Your task to perform on an android device: uninstall "Google Photos" Image 0: 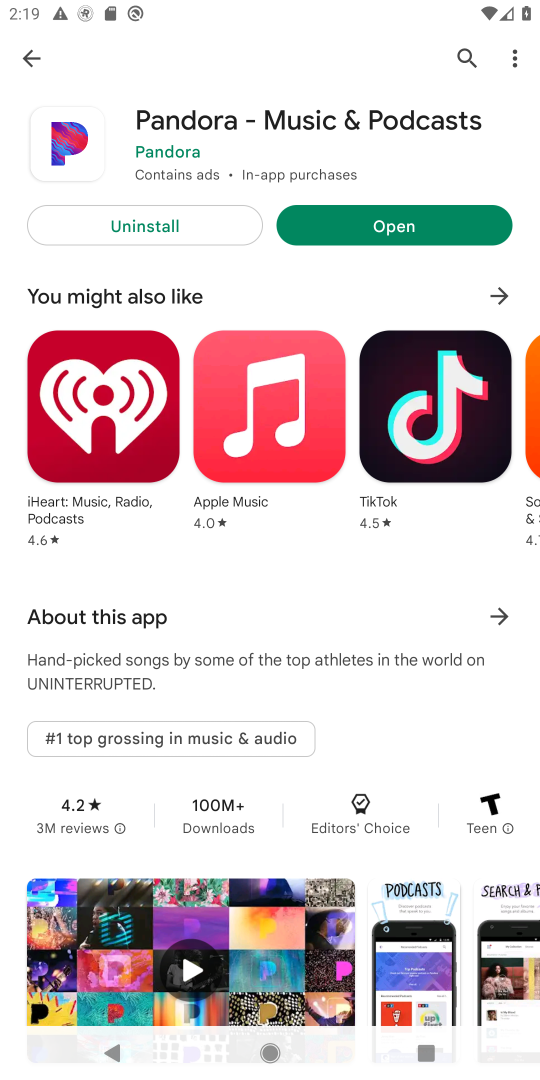
Step 0: click (467, 55)
Your task to perform on an android device: uninstall "Google Photos" Image 1: 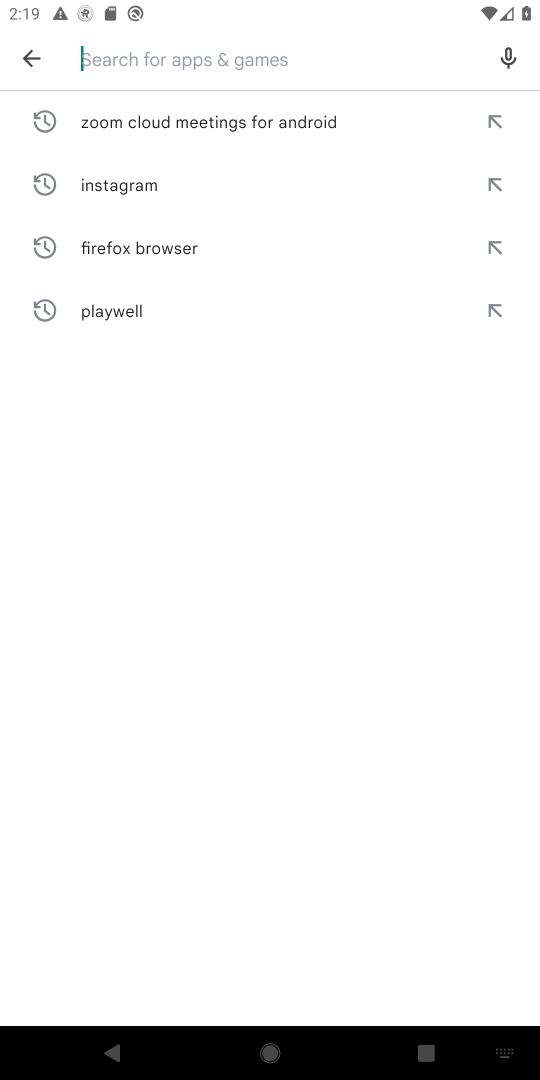
Step 1: type "Google Photos"
Your task to perform on an android device: uninstall "Google Photos" Image 2: 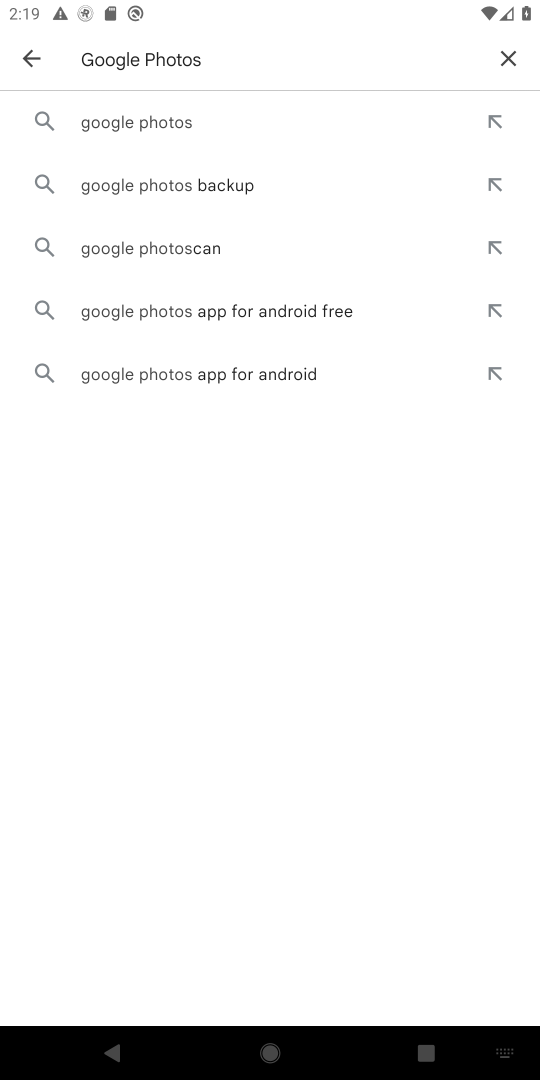
Step 2: click (140, 124)
Your task to perform on an android device: uninstall "Google Photos" Image 3: 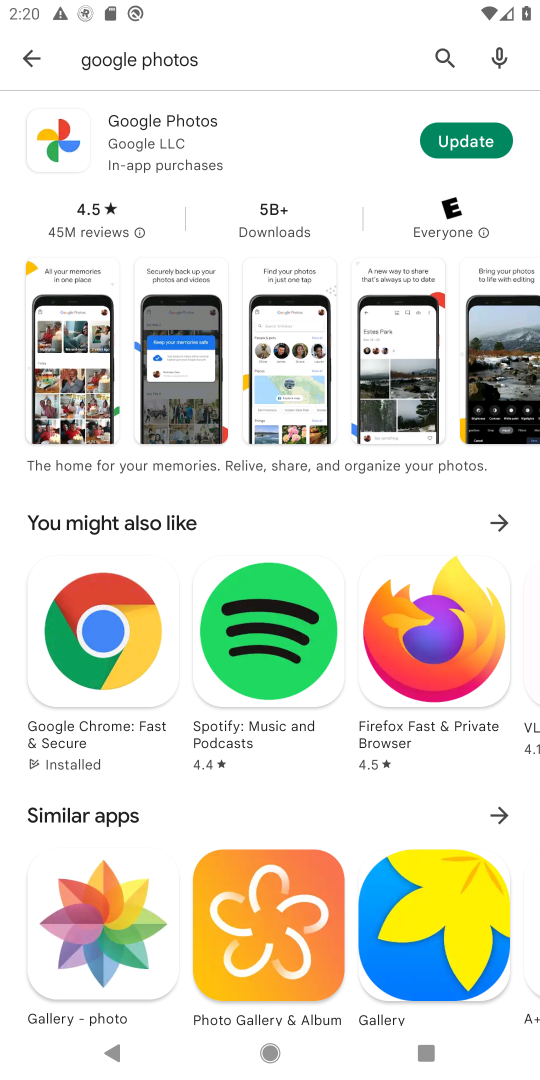
Step 3: click (146, 142)
Your task to perform on an android device: uninstall "Google Photos" Image 4: 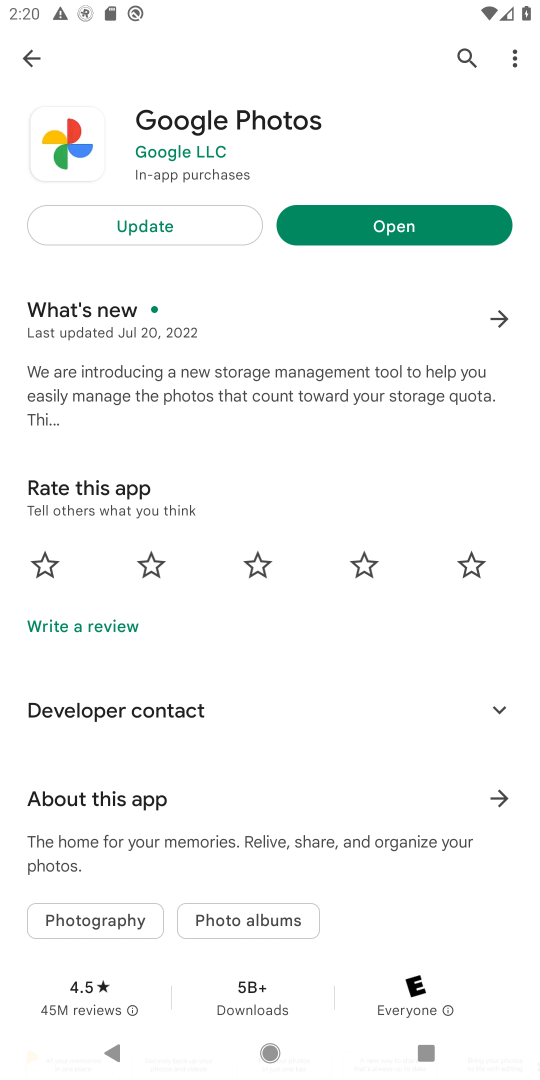
Step 4: task complete